Your task to perform on an android device: Go to Android settings Image 0: 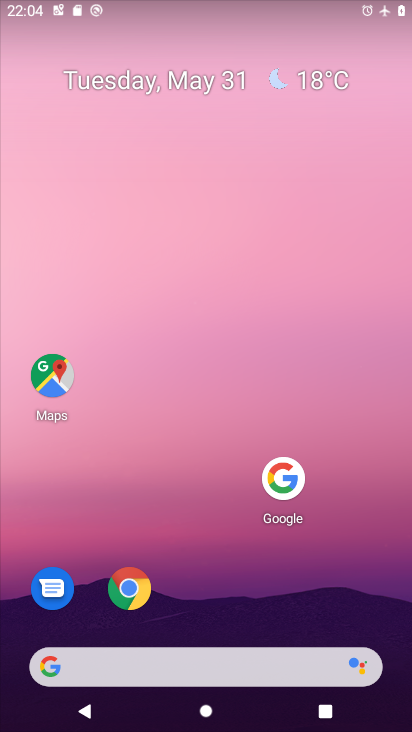
Step 0: press home button
Your task to perform on an android device: Go to Android settings Image 1: 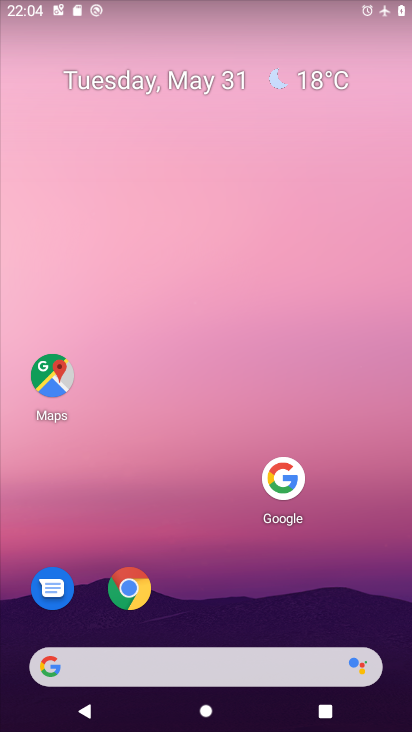
Step 1: drag from (149, 658) to (248, 232)
Your task to perform on an android device: Go to Android settings Image 2: 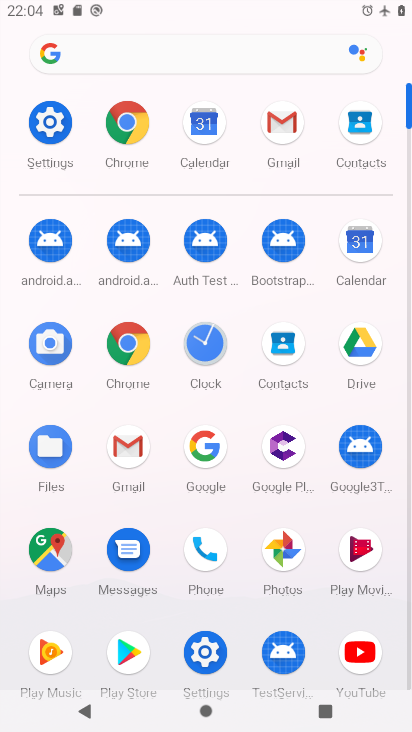
Step 2: click (54, 126)
Your task to perform on an android device: Go to Android settings Image 3: 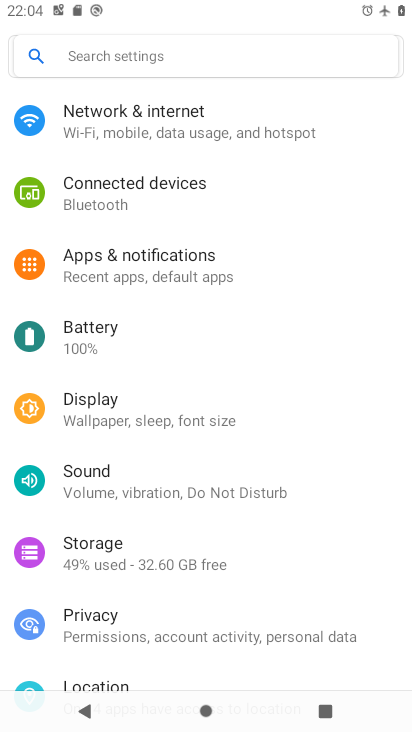
Step 3: task complete